Your task to perform on an android device: What's the weather today? Image 0: 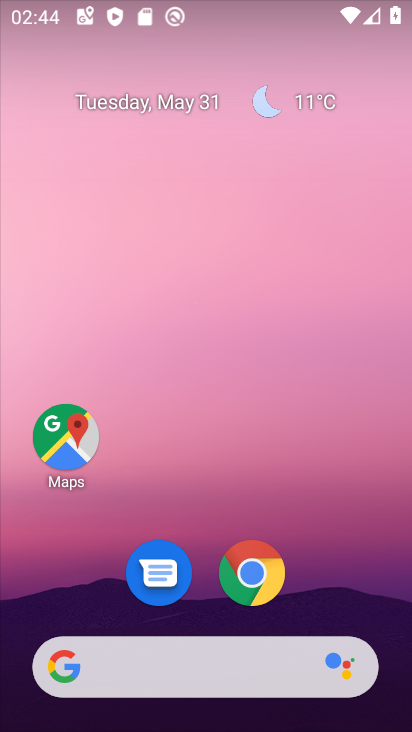
Step 0: click (273, 665)
Your task to perform on an android device: What's the weather today? Image 1: 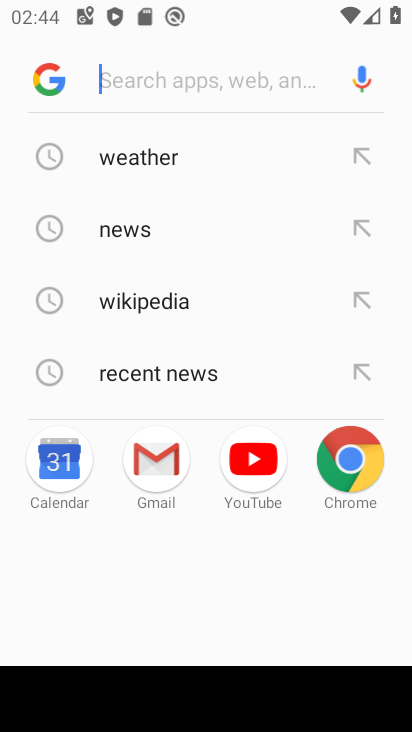
Step 1: click (176, 151)
Your task to perform on an android device: What's the weather today? Image 2: 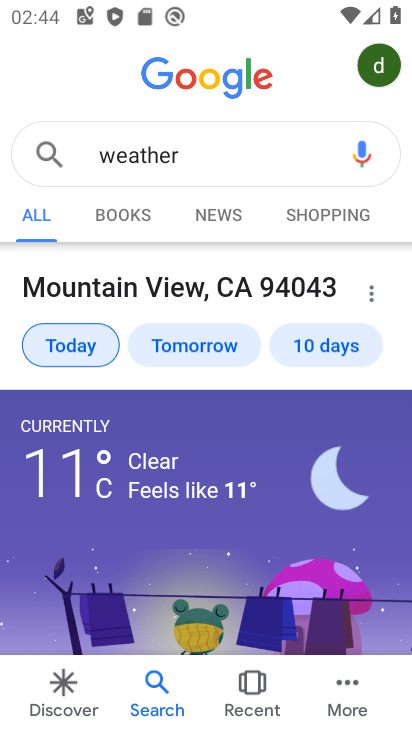
Step 2: task complete